Your task to perform on an android device: What's the weather? Image 0: 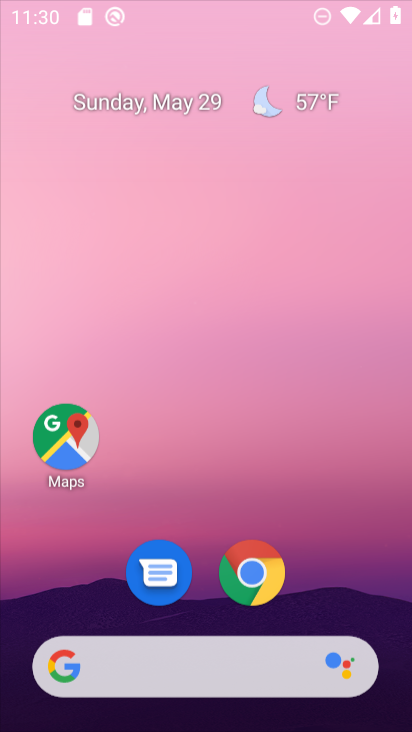
Step 0: press home button
Your task to perform on an android device: What's the weather? Image 1: 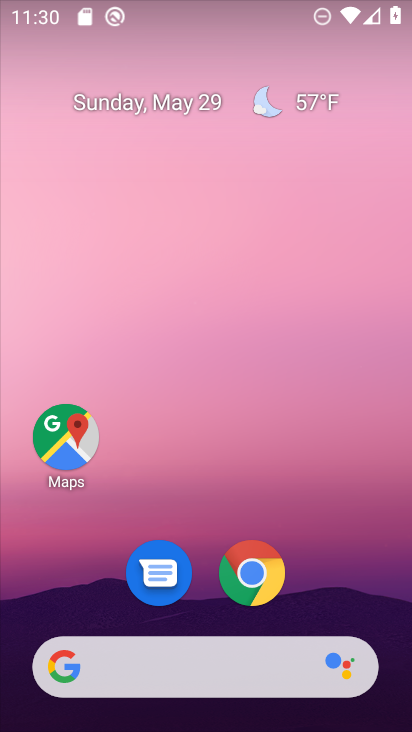
Step 1: drag from (280, 677) to (287, 722)
Your task to perform on an android device: What's the weather? Image 2: 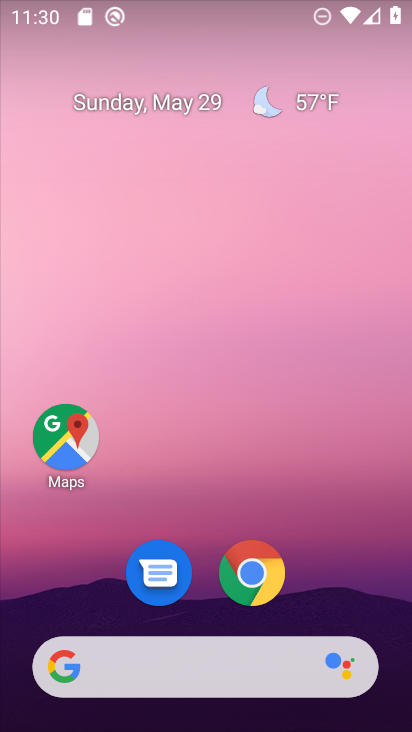
Step 2: drag from (53, 294) to (349, 313)
Your task to perform on an android device: What's the weather? Image 3: 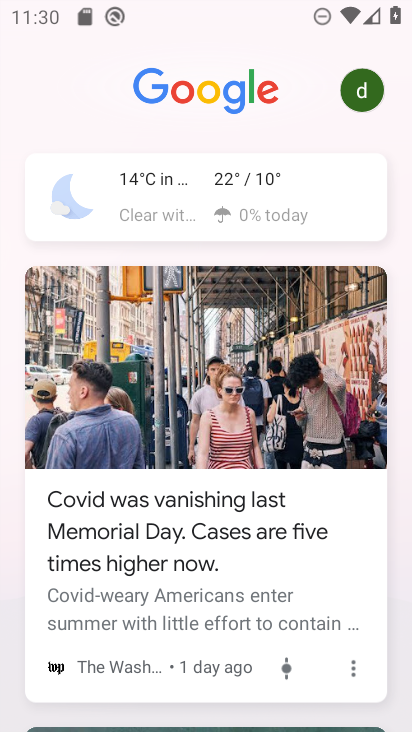
Step 3: click (158, 194)
Your task to perform on an android device: What's the weather? Image 4: 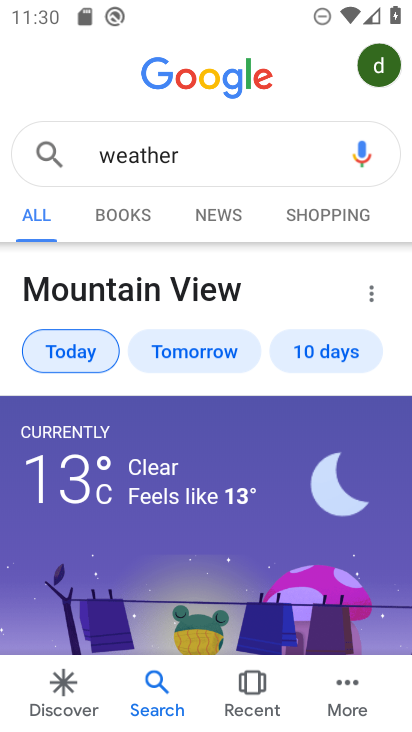
Step 4: task complete